Your task to perform on an android device: open sync settings in chrome Image 0: 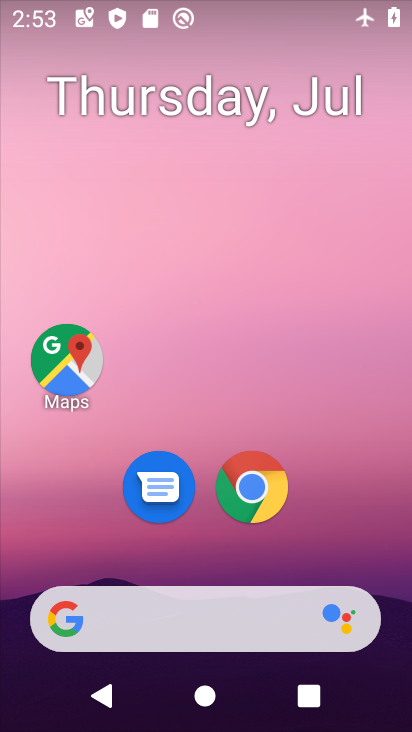
Step 0: drag from (377, 559) to (402, 168)
Your task to perform on an android device: open sync settings in chrome Image 1: 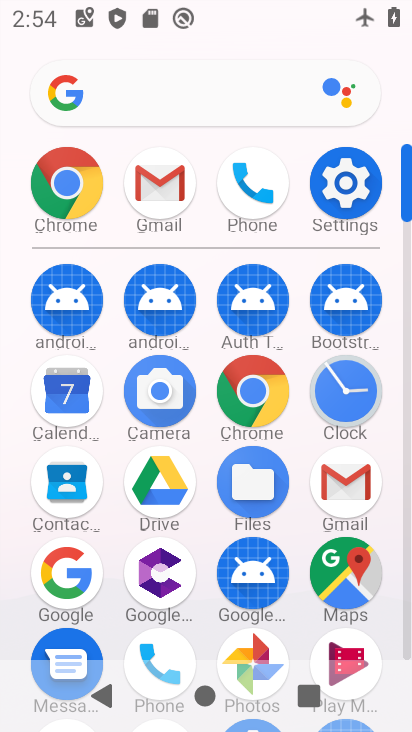
Step 1: click (259, 396)
Your task to perform on an android device: open sync settings in chrome Image 2: 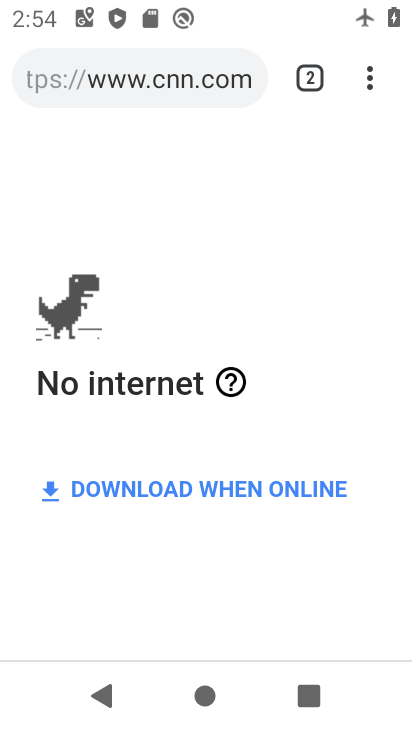
Step 2: click (366, 87)
Your task to perform on an android device: open sync settings in chrome Image 3: 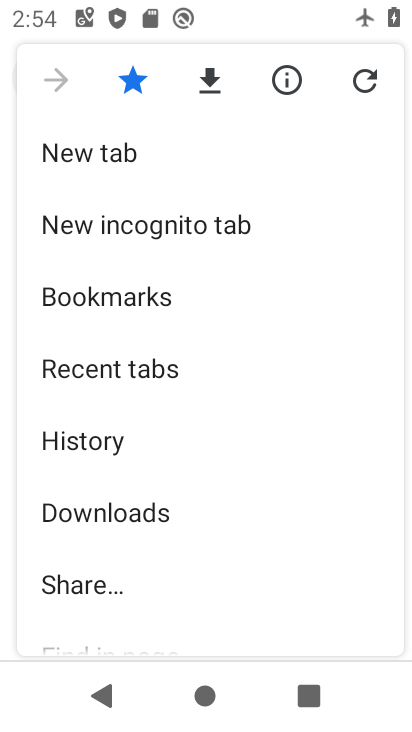
Step 3: drag from (340, 383) to (345, 281)
Your task to perform on an android device: open sync settings in chrome Image 4: 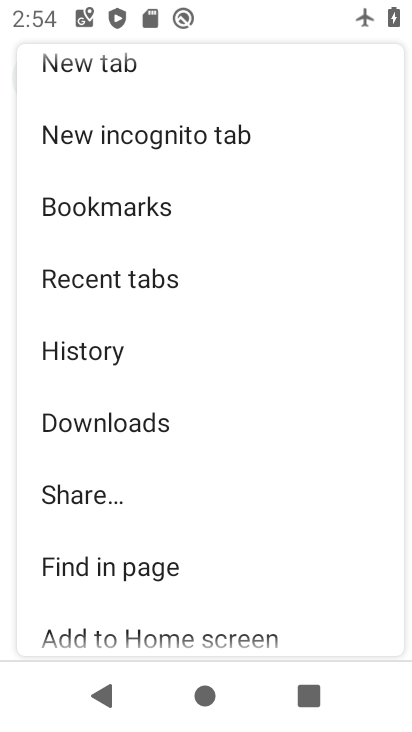
Step 4: drag from (316, 429) to (316, 334)
Your task to perform on an android device: open sync settings in chrome Image 5: 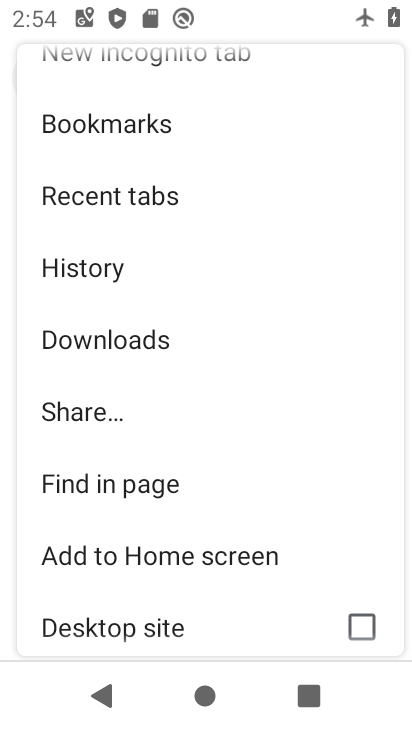
Step 5: drag from (308, 410) to (314, 334)
Your task to perform on an android device: open sync settings in chrome Image 6: 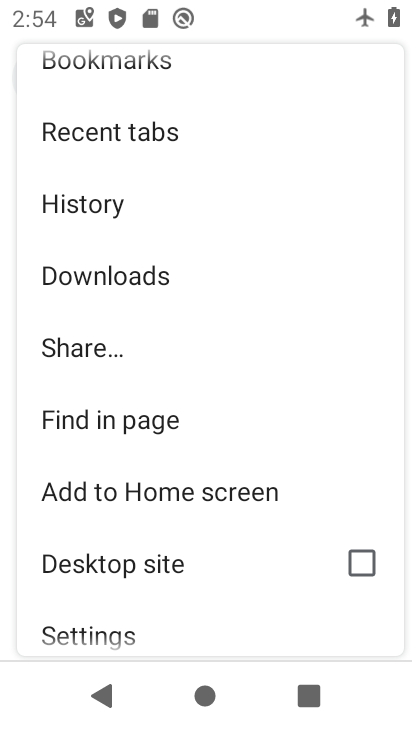
Step 6: drag from (313, 434) to (320, 325)
Your task to perform on an android device: open sync settings in chrome Image 7: 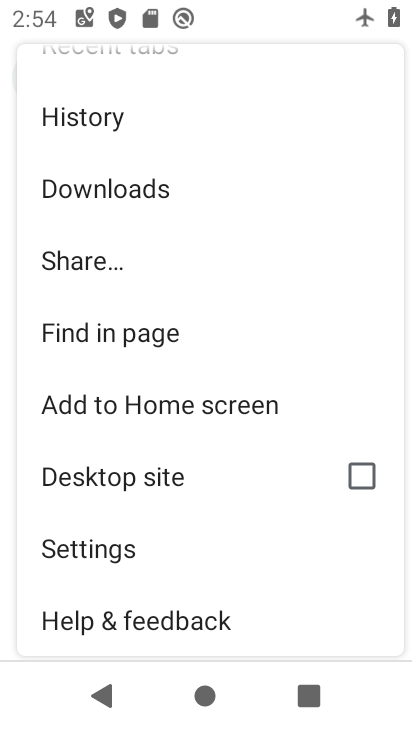
Step 7: drag from (309, 407) to (309, 323)
Your task to perform on an android device: open sync settings in chrome Image 8: 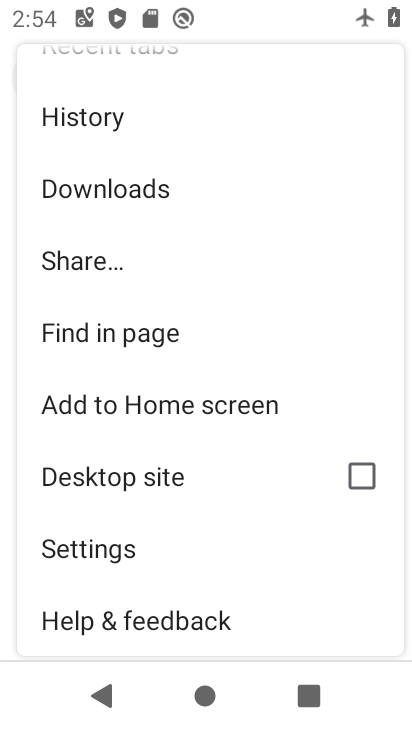
Step 8: click (119, 551)
Your task to perform on an android device: open sync settings in chrome Image 9: 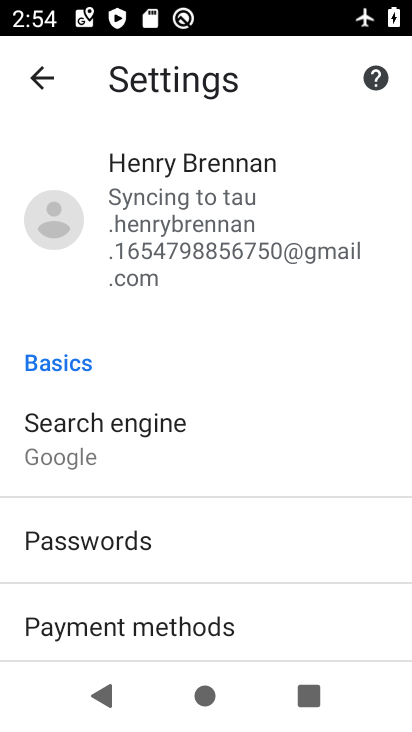
Step 9: drag from (348, 535) to (342, 419)
Your task to perform on an android device: open sync settings in chrome Image 10: 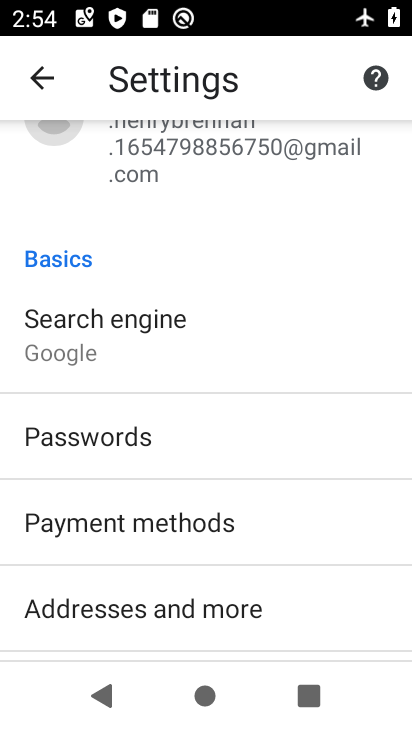
Step 10: drag from (326, 502) to (325, 404)
Your task to perform on an android device: open sync settings in chrome Image 11: 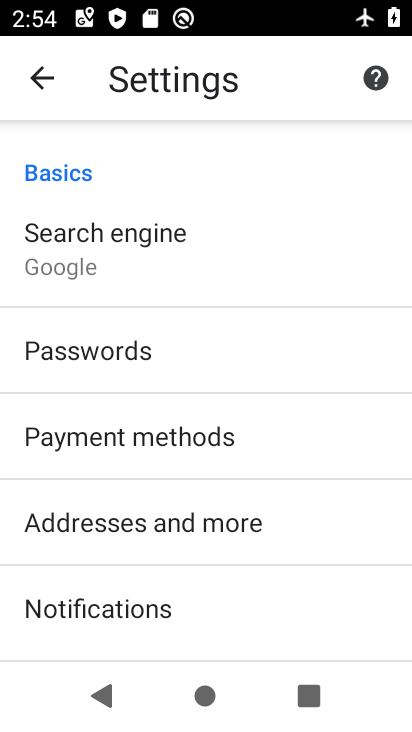
Step 11: drag from (321, 499) to (323, 410)
Your task to perform on an android device: open sync settings in chrome Image 12: 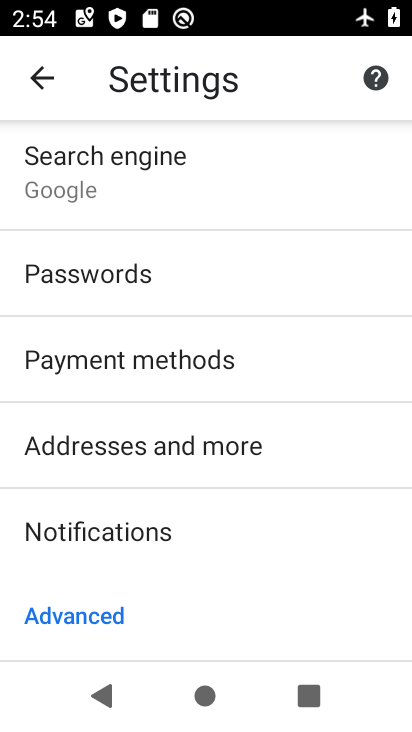
Step 12: drag from (333, 483) to (333, 407)
Your task to perform on an android device: open sync settings in chrome Image 13: 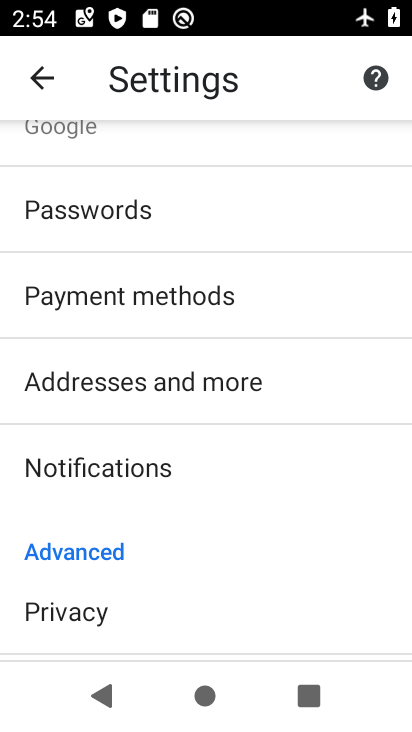
Step 13: drag from (328, 481) to (328, 355)
Your task to perform on an android device: open sync settings in chrome Image 14: 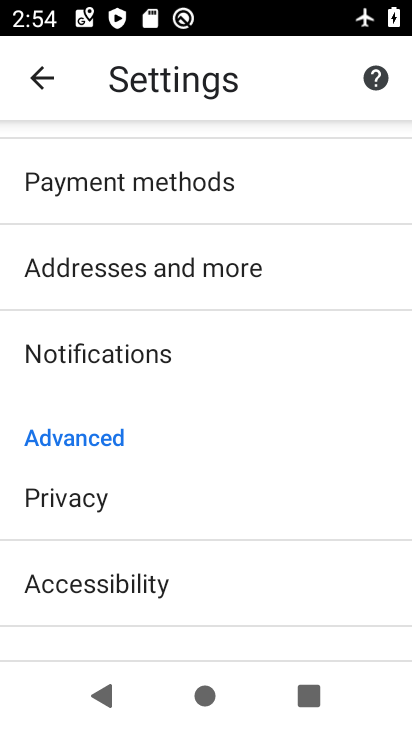
Step 14: drag from (322, 454) to (320, 347)
Your task to perform on an android device: open sync settings in chrome Image 15: 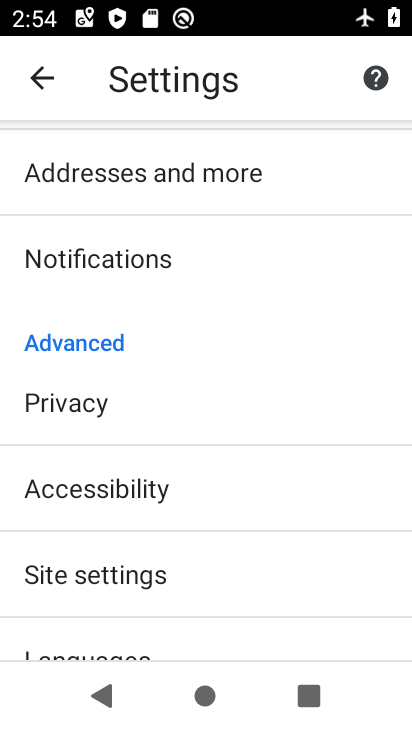
Step 15: drag from (301, 458) to (310, 324)
Your task to perform on an android device: open sync settings in chrome Image 16: 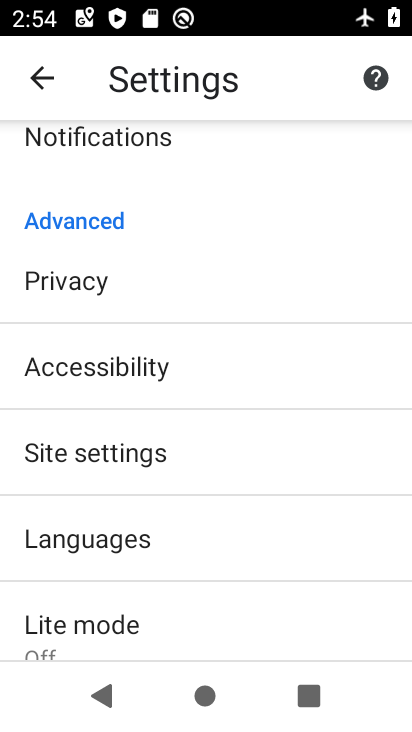
Step 16: click (238, 453)
Your task to perform on an android device: open sync settings in chrome Image 17: 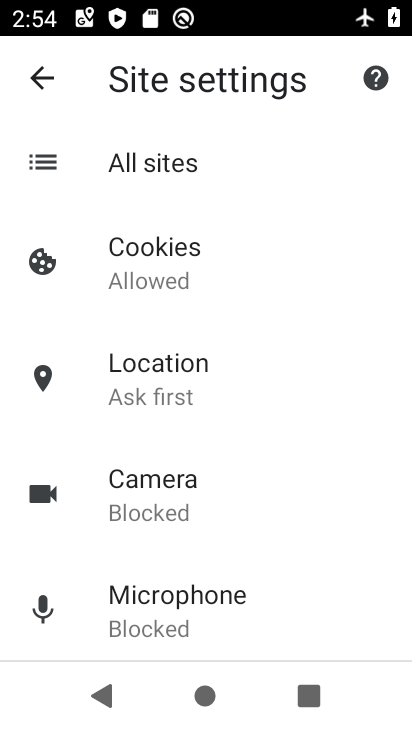
Step 17: drag from (341, 470) to (350, 375)
Your task to perform on an android device: open sync settings in chrome Image 18: 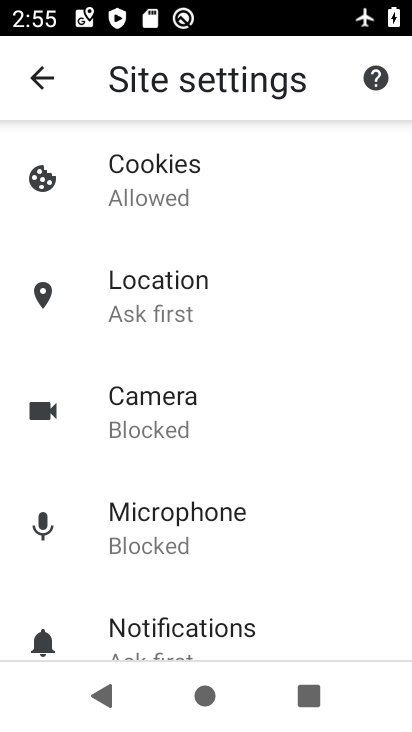
Step 18: drag from (350, 503) to (348, 399)
Your task to perform on an android device: open sync settings in chrome Image 19: 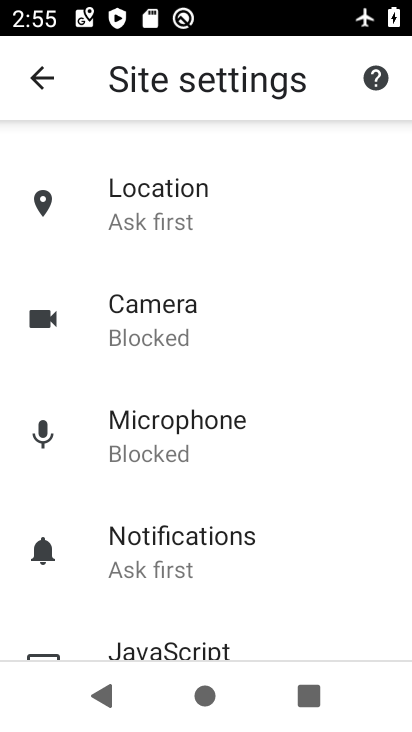
Step 19: drag from (331, 495) to (332, 411)
Your task to perform on an android device: open sync settings in chrome Image 20: 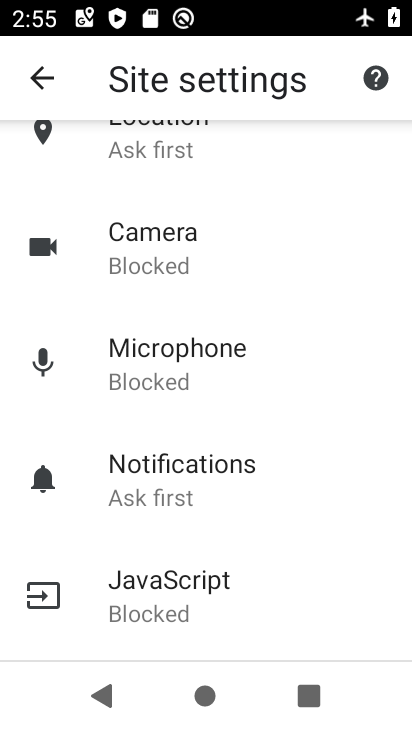
Step 20: drag from (320, 530) to (320, 412)
Your task to perform on an android device: open sync settings in chrome Image 21: 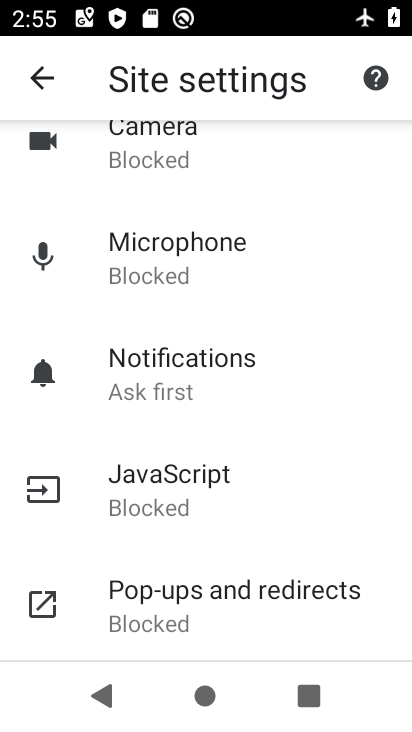
Step 21: drag from (322, 504) to (322, 395)
Your task to perform on an android device: open sync settings in chrome Image 22: 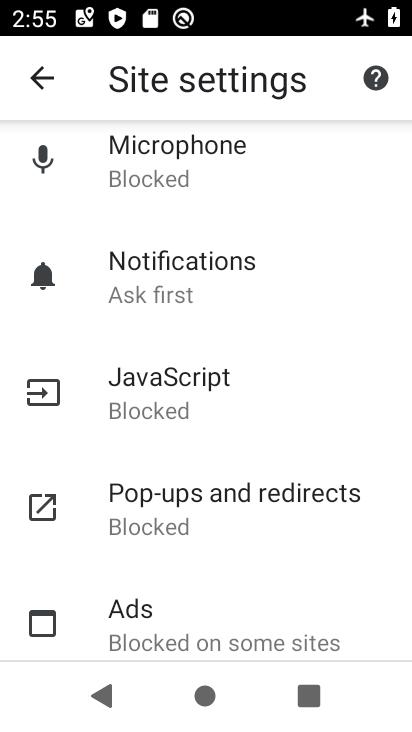
Step 22: drag from (336, 550) to (336, 436)
Your task to perform on an android device: open sync settings in chrome Image 23: 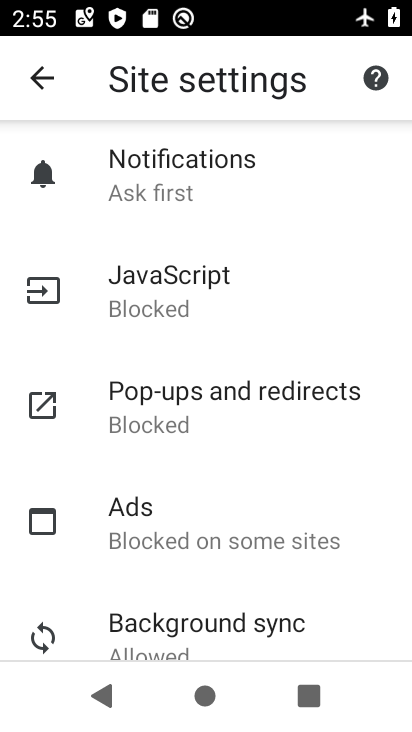
Step 23: drag from (362, 585) to (363, 456)
Your task to perform on an android device: open sync settings in chrome Image 24: 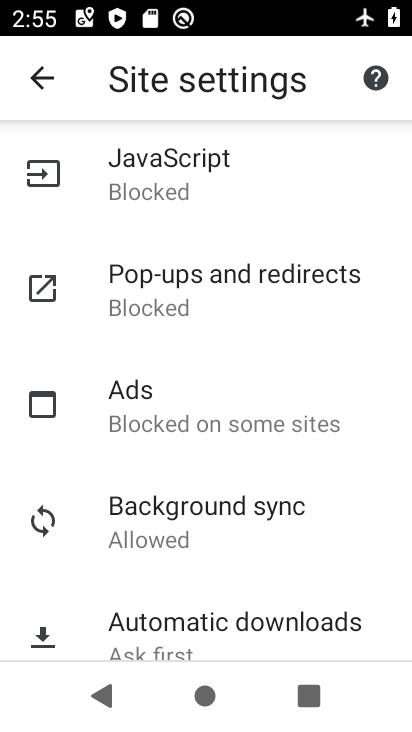
Step 24: drag from (363, 564) to (370, 457)
Your task to perform on an android device: open sync settings in chrome Image 25: 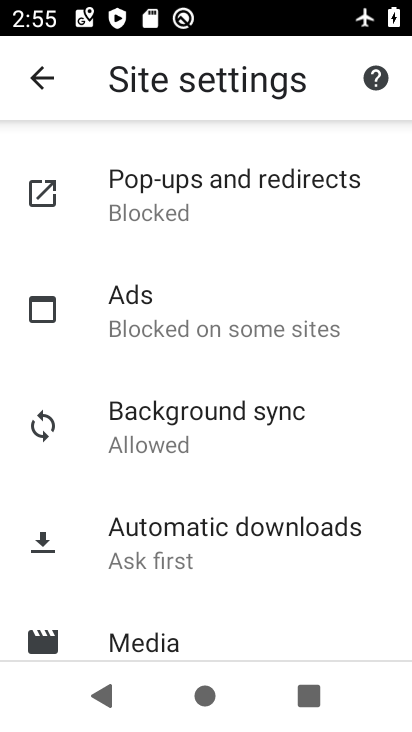
Step 25: click (275, 424)
Your task to perform on an android device: open sync settings in chrome Image 26: 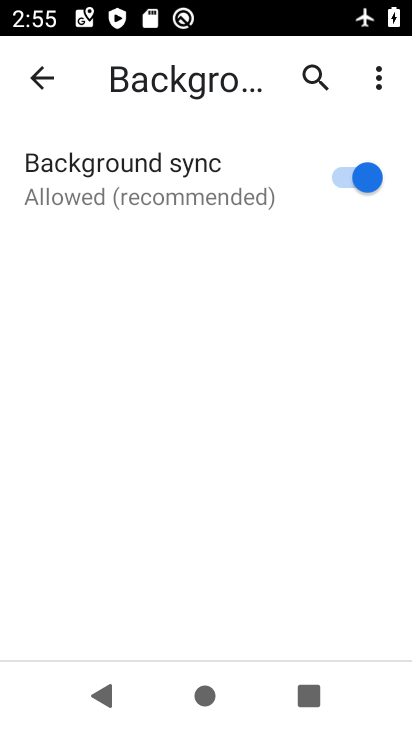
Step 26: task complete